Your task to perform on an android device: turn off notifications settings in the gmail app Image 0: 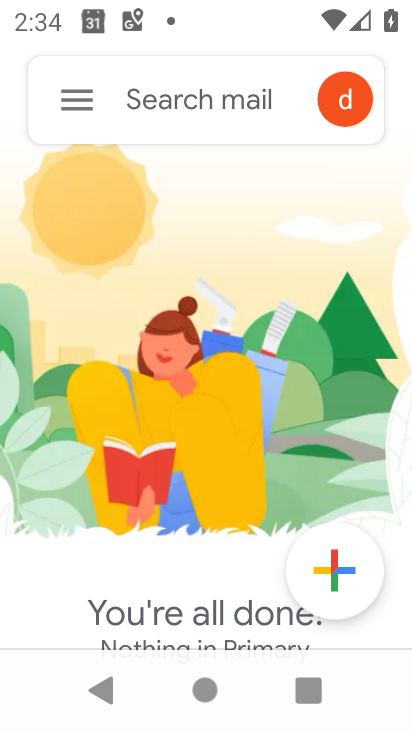
Step 0: press home button
Your task to perform on an android device: turn off notifications settings in the gmail app Image 1: 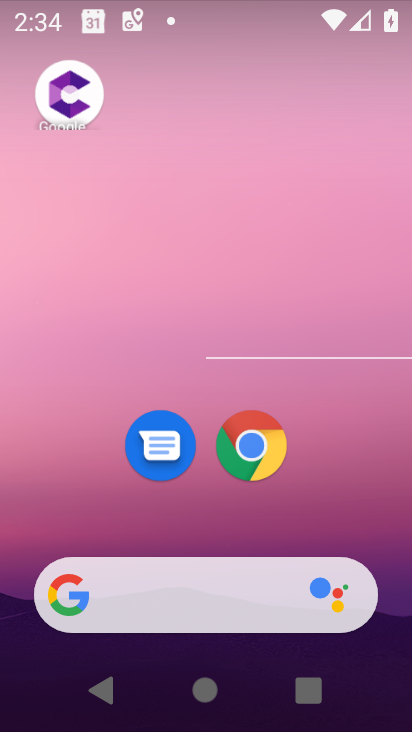
Step 1: drag from (247, 683) to (339, 22)
Your task to perform on an android device: turn off notifications settings in the gmail app Image 2: 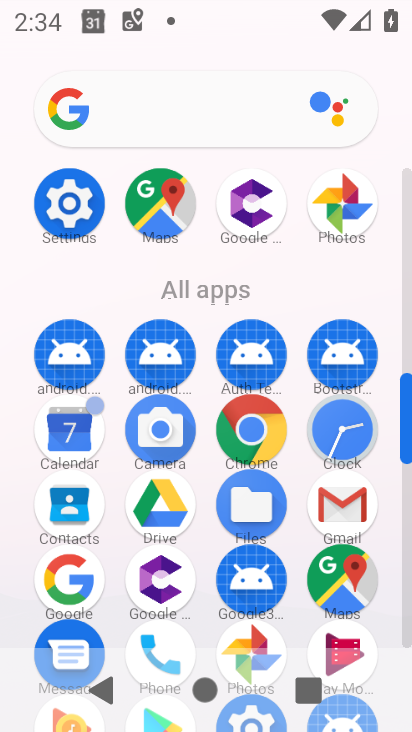
Step 2: click (358, 485)
Your task to perform on an android device: turn off notifications settings in the gmail app Image 3: 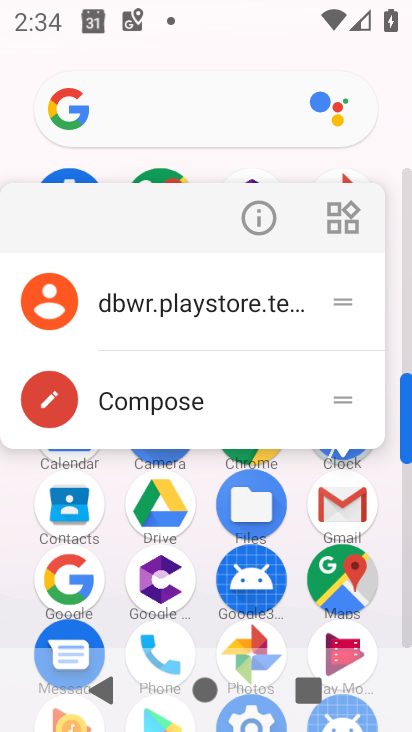
Step 3: click (260, 214)
Your task to perform on an android device: turn off notifications settings in the gmail app Image 4: 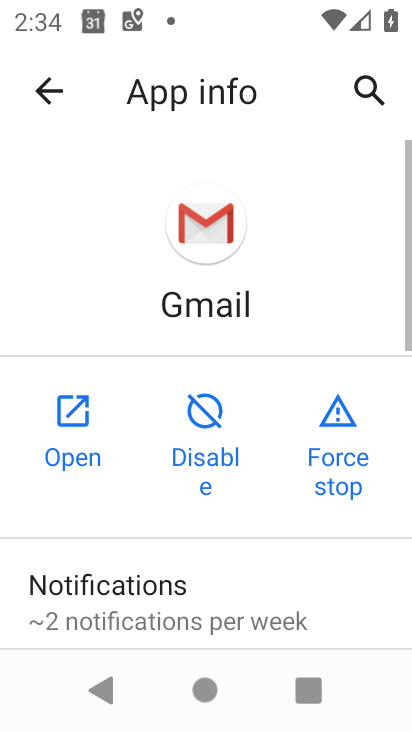
Step 4: click (150, 611)
Your task to perform on an android device: turn off notifications settings in the gmail app Image 5: 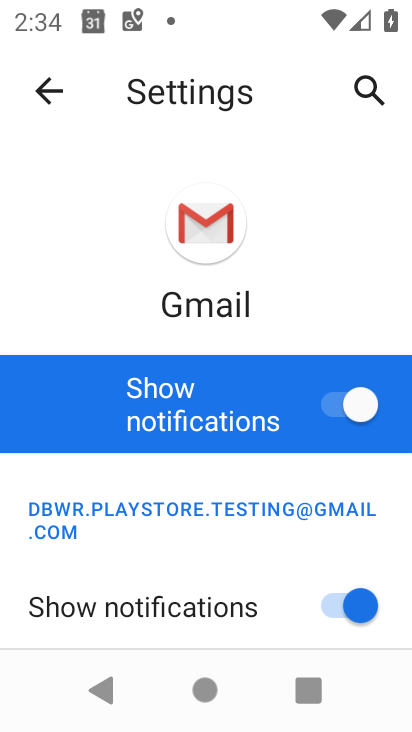
Step 5: click (365, 405)
Your task to perform on an android device: turn off notifications settings in the gmail app Image 6: 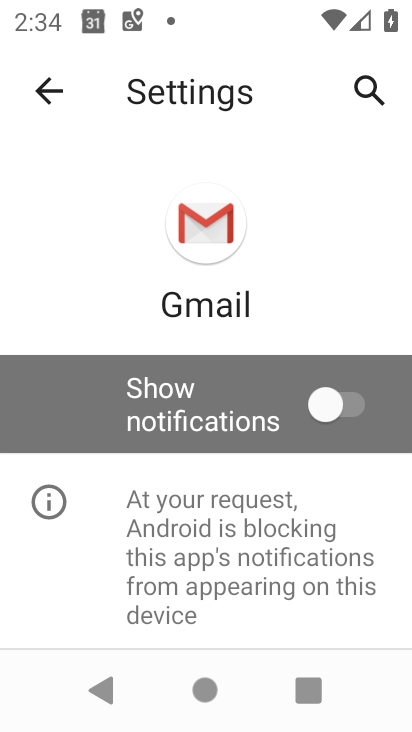
Step 6: task complete